Your task to perform on an android device: Open the stopwatch Image 0: 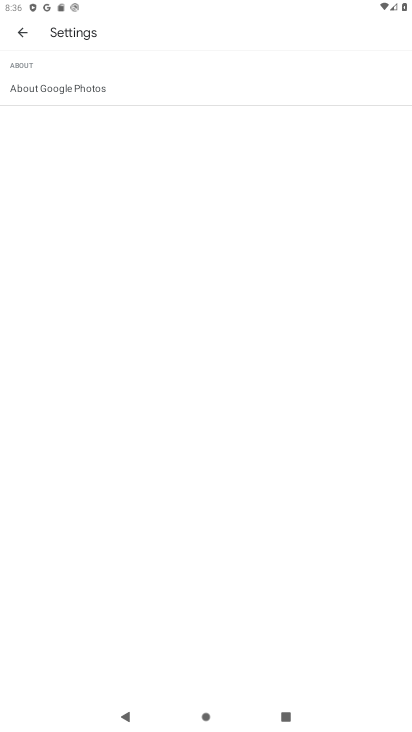
Step 0: press home button
Your task to perform on an android device: Open the stopwatch Image 1: 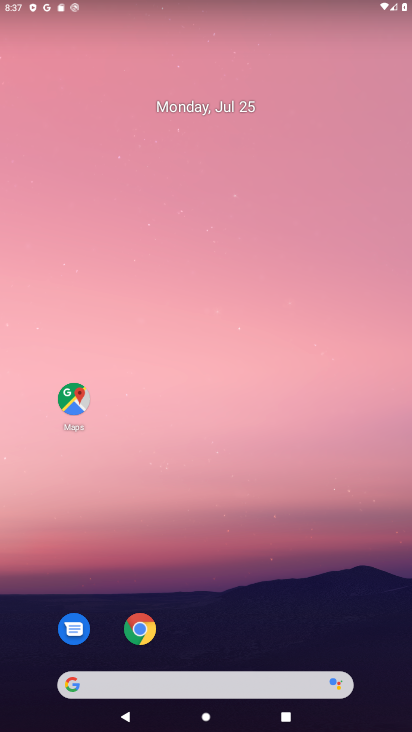
Step 1: drag from (191, 642) to (154, 12)
Your task to perform on an android device: Open the stopwatch Image 2: 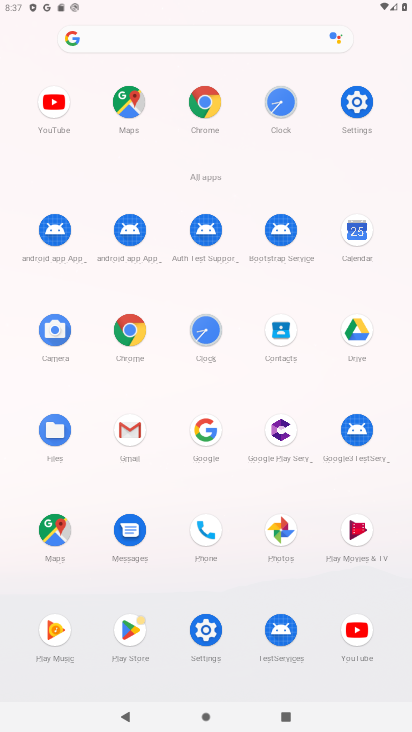
Step 2: click (272, 113)
Your task to perform on an android device: Open the stopwatch Image 3: 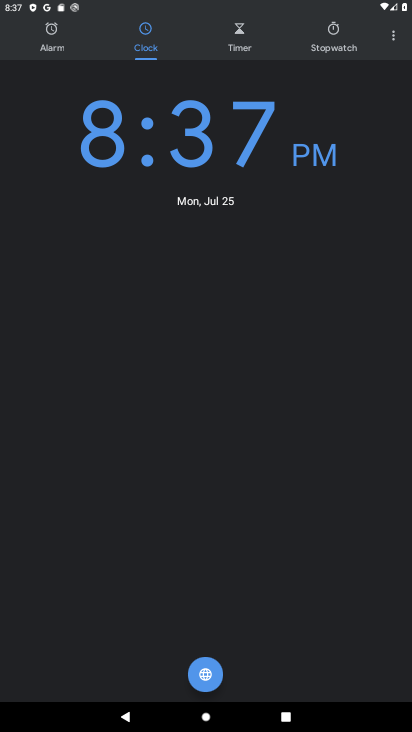
Step 3: click (342, 45)
Your task to perform on an android device: Open the stopwatch Image 4: 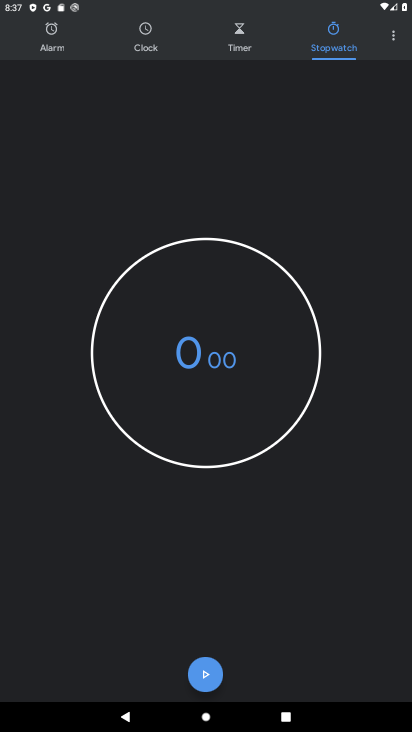
Step 4: task complete